Your task to perform on an android device: set the stopwatch Image 0: 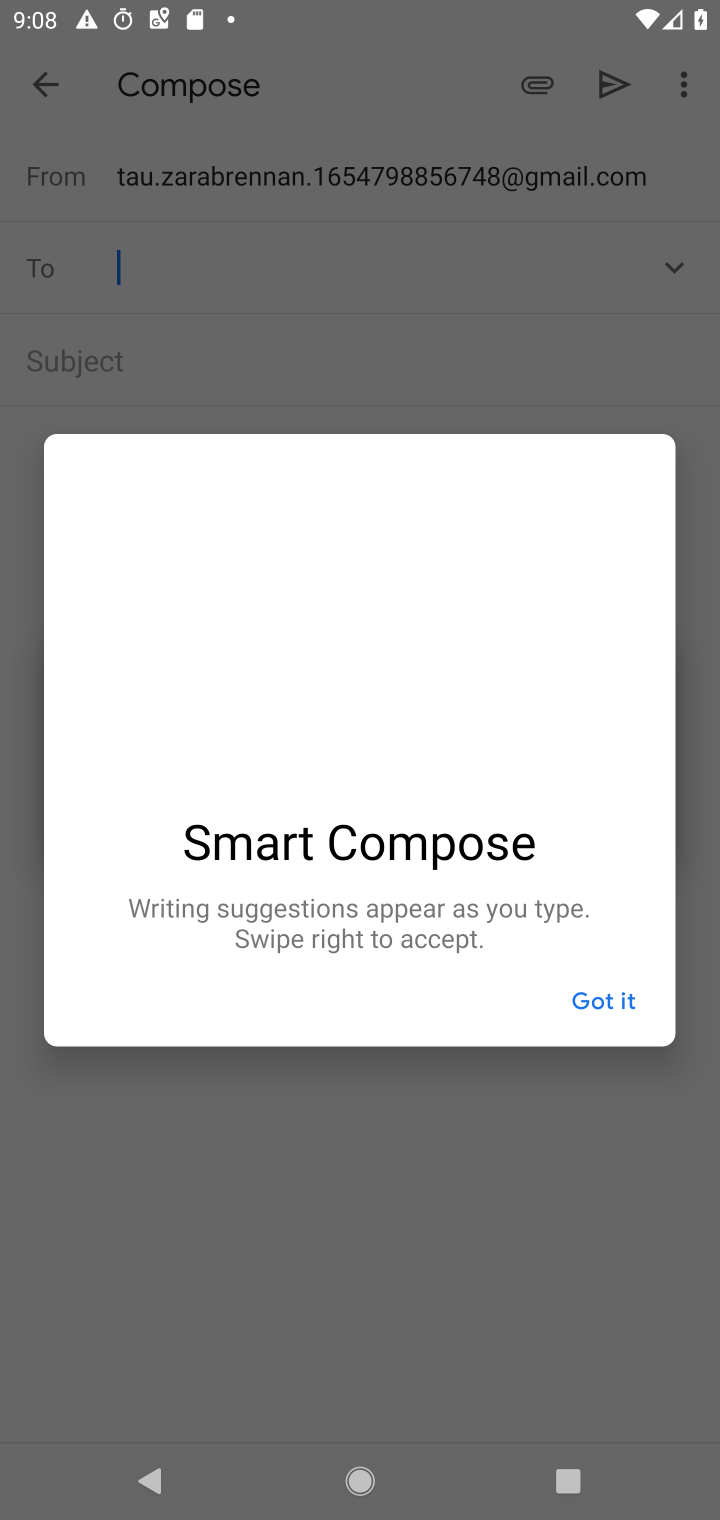
Step 0: press home button
Your task to perform on an android device: set the stopwatch Image 1: 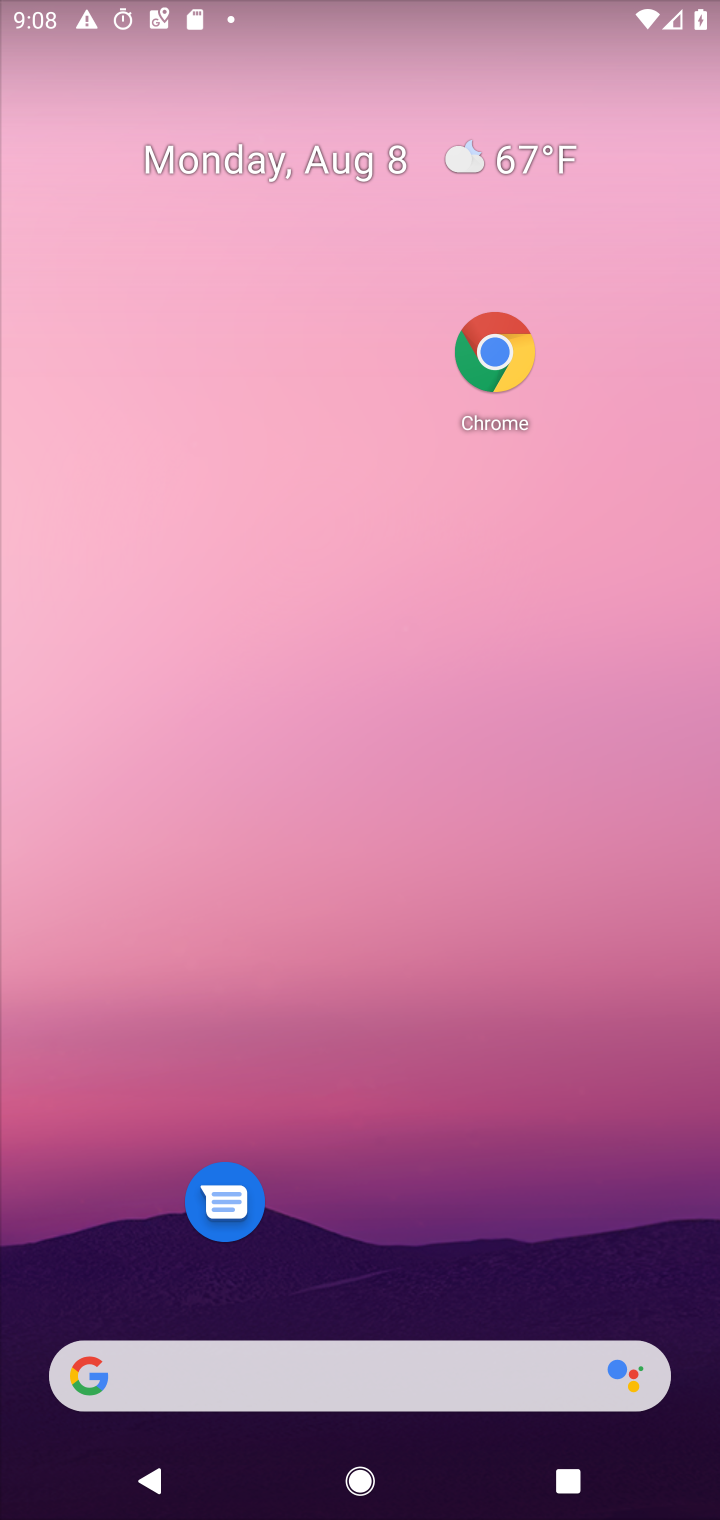
Step 1: drag from (341, 1354) to (341, 278)
Your task to perform on an android device: set the stopwatch Image 2: 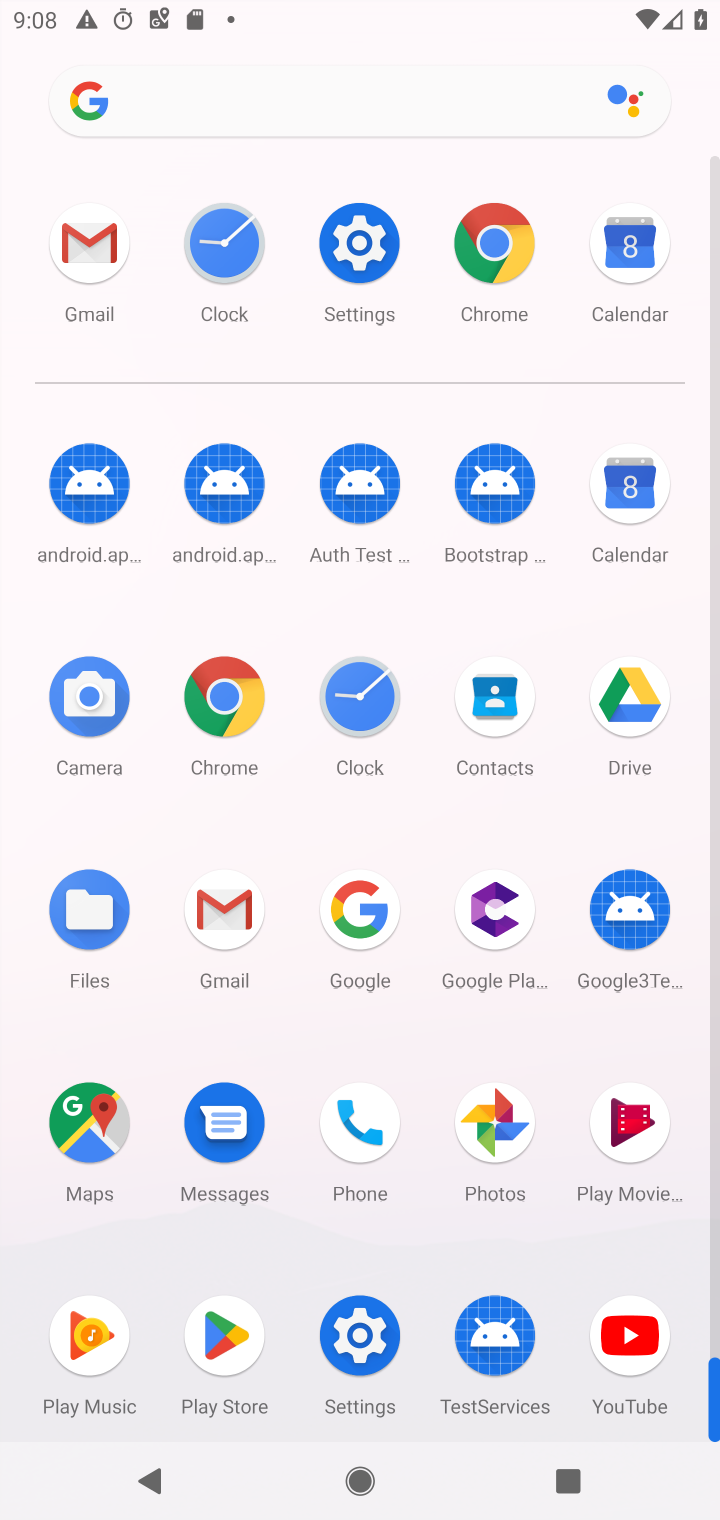
Step 2: click (364, 730)
Your task to perform on an android device: set the stopwatch Image 3: 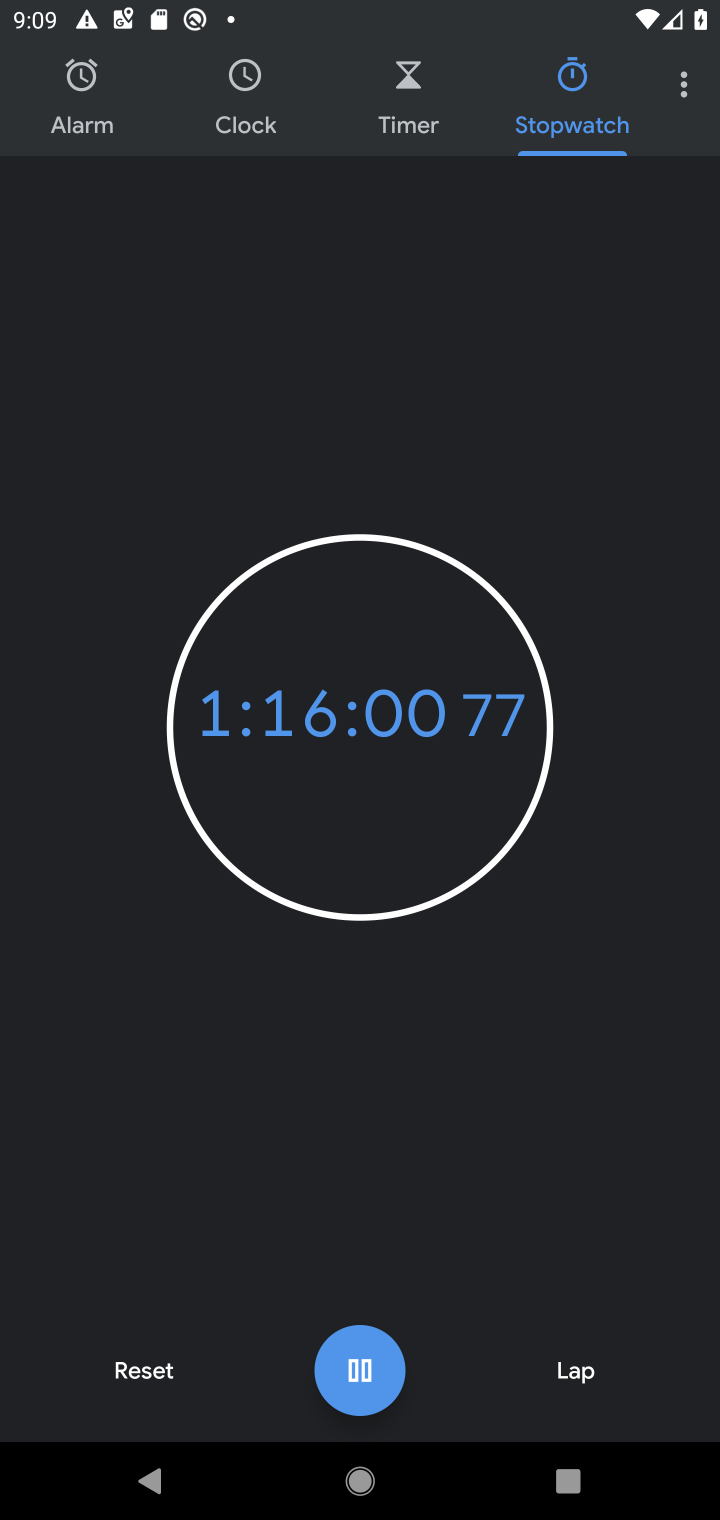
Step 3: task complete